Your task to perform on an android device: Search for flights from NYC to Buenos aires Image 0: 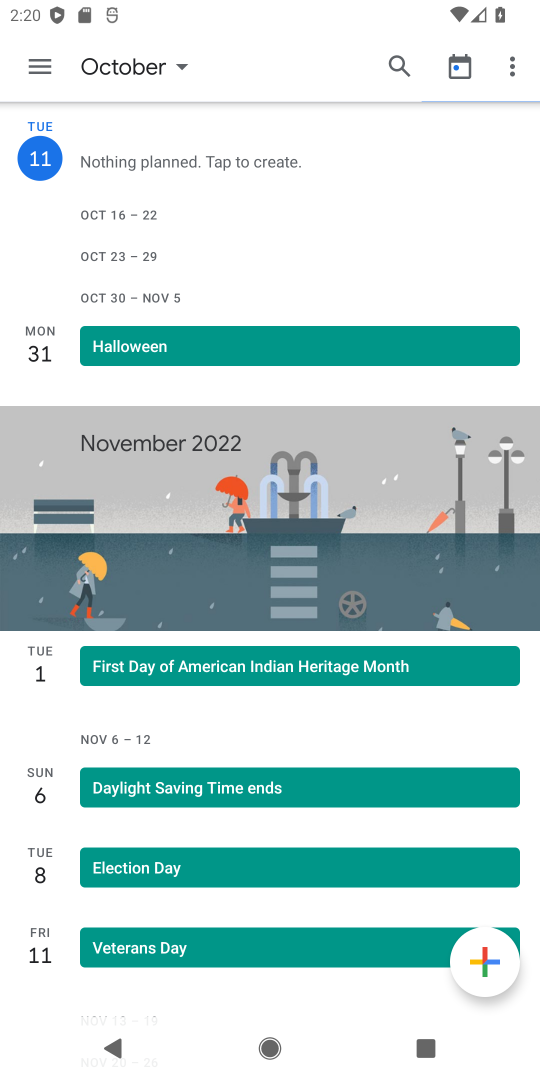
Step 0: press home button
Your task to perform on an android device: Search for flights from NYC to Buenos aires Image 1: 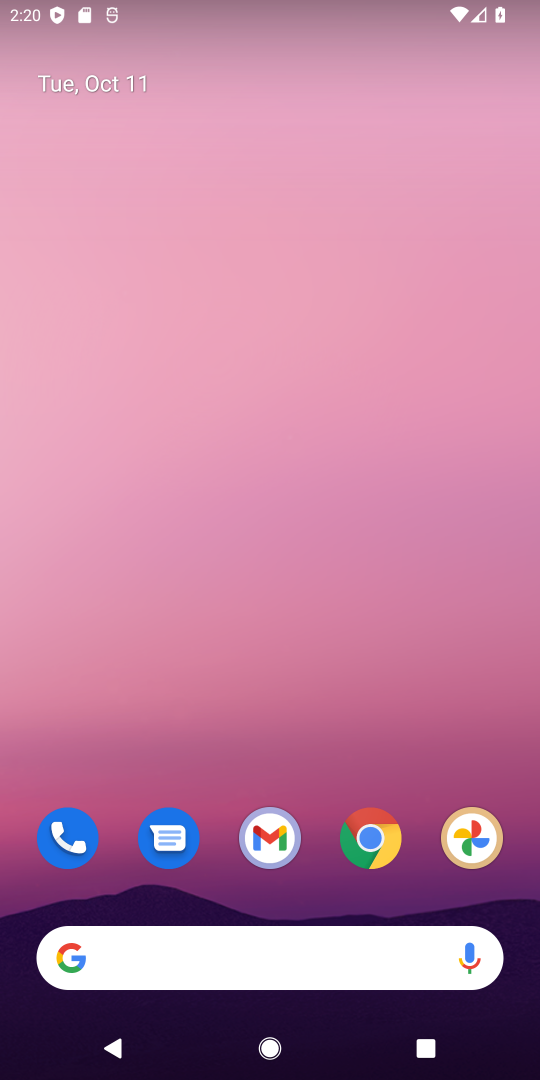
Step 1: click (369, 833)
Your task to perform on an android device: Search for flights from NYC to Buenos aires Image 2: 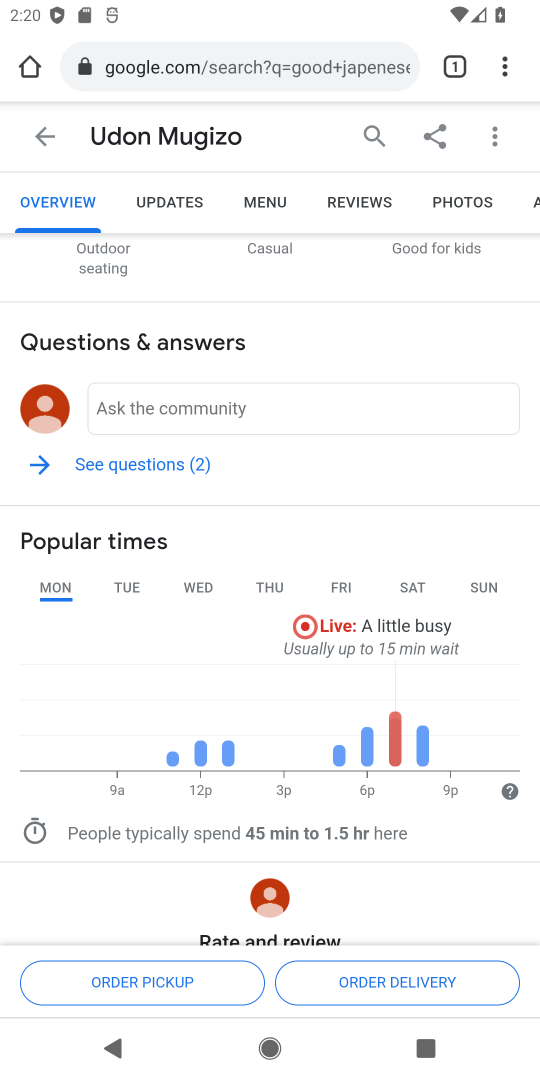
Step 2: click (189, 51)
Your task to perform on an android device: Search for flights from NYC to Buenos aires Image 3: 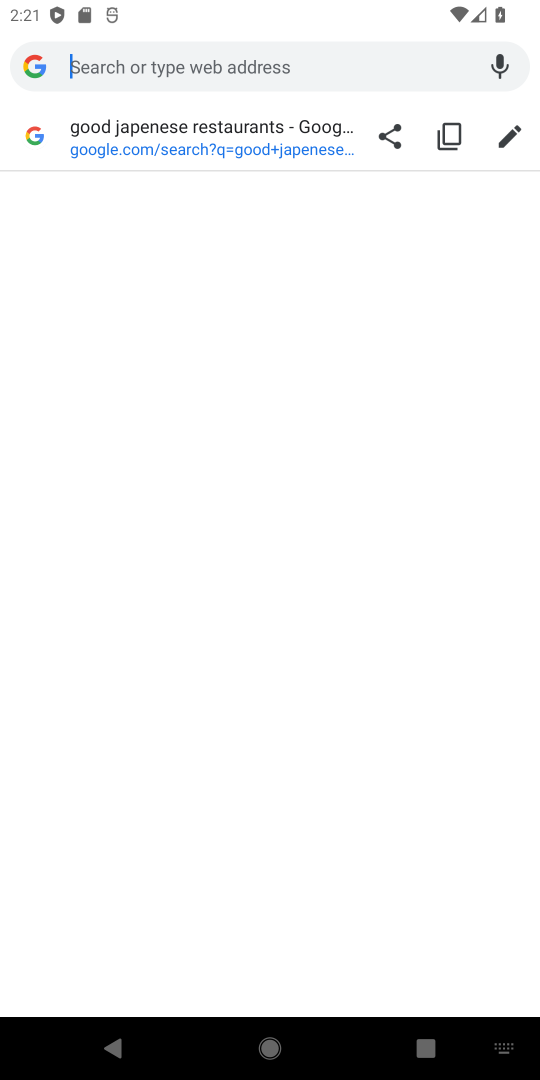
Step 3: type "search flight"
Your task to perform on an android device: Search for flights from NYC to Buenos aires Image 4: 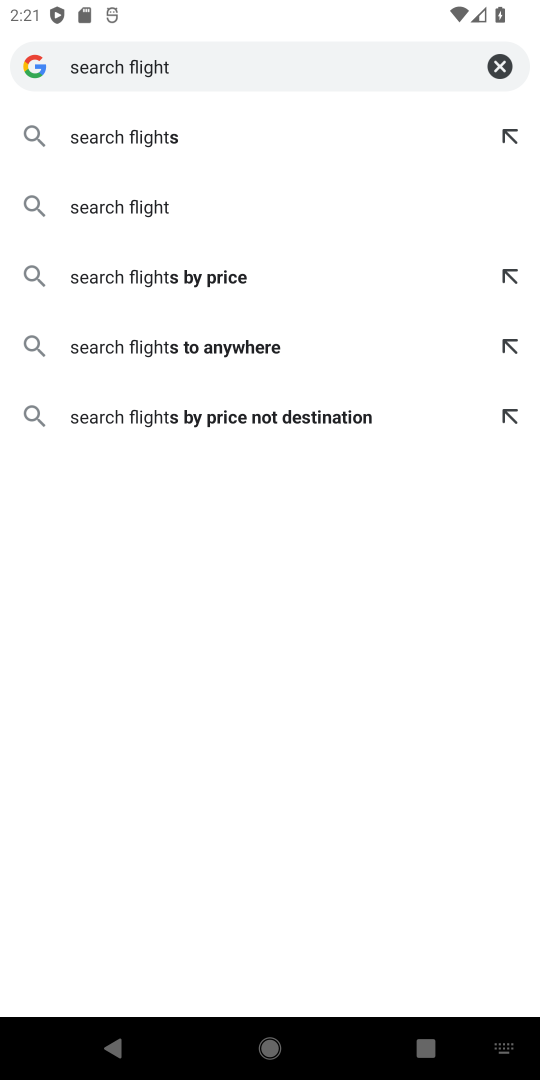
Step 4: click (148, 130)
Your task to perform on an android device: Search for flights from NYC to Buenos aires Image 5: 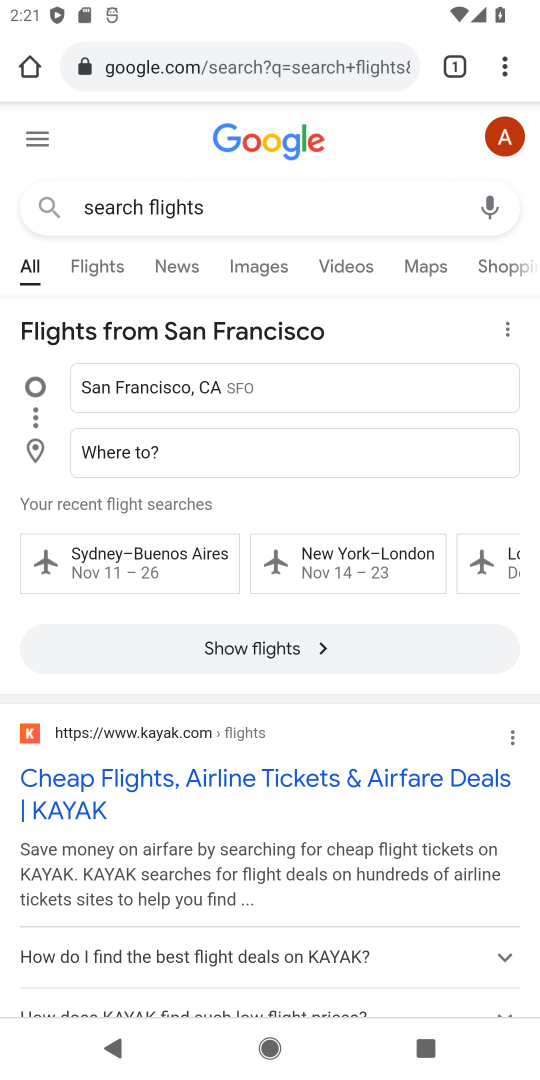
Step 5: drag from (358, 931) to (358, 306)
Your task to perform on an android device: Search for flights from NYC to Buenos aires Image 6: 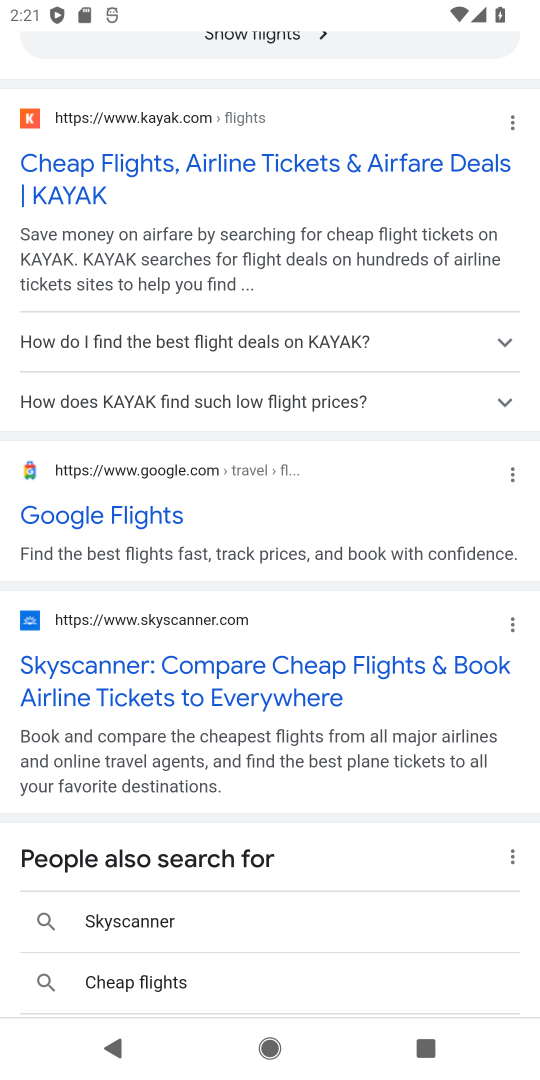
Step 6: drag from (287, 916) to (279, 352)
Your task to perform on an android device: Search for flights from NYC to Buenos aires Image 7: 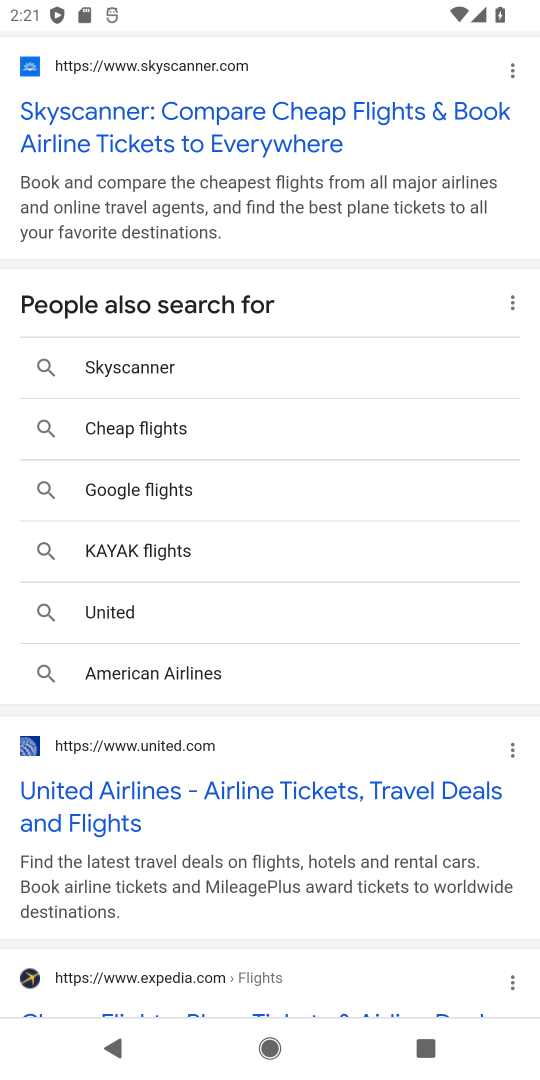
Step 7: drag from (301, 885) to (284, 278)
Your task to perform on an android device: Search for flights from NYC to Buenos aires Image 8: 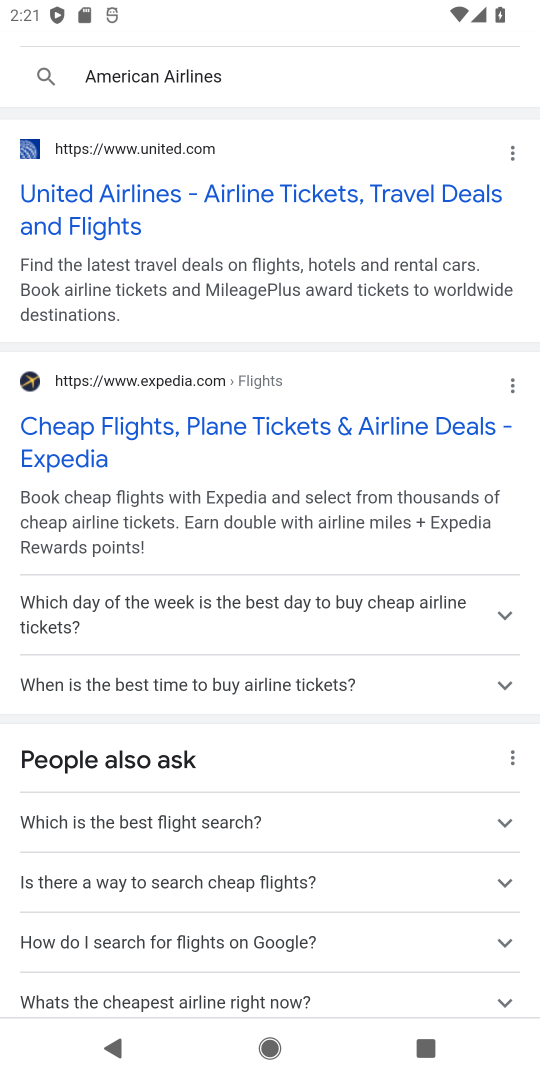
Step 8: drag from (374, 953) to (392, 275)
Your task to perform on an android device: Search for flights from NYC to Buenos aires Image 9: 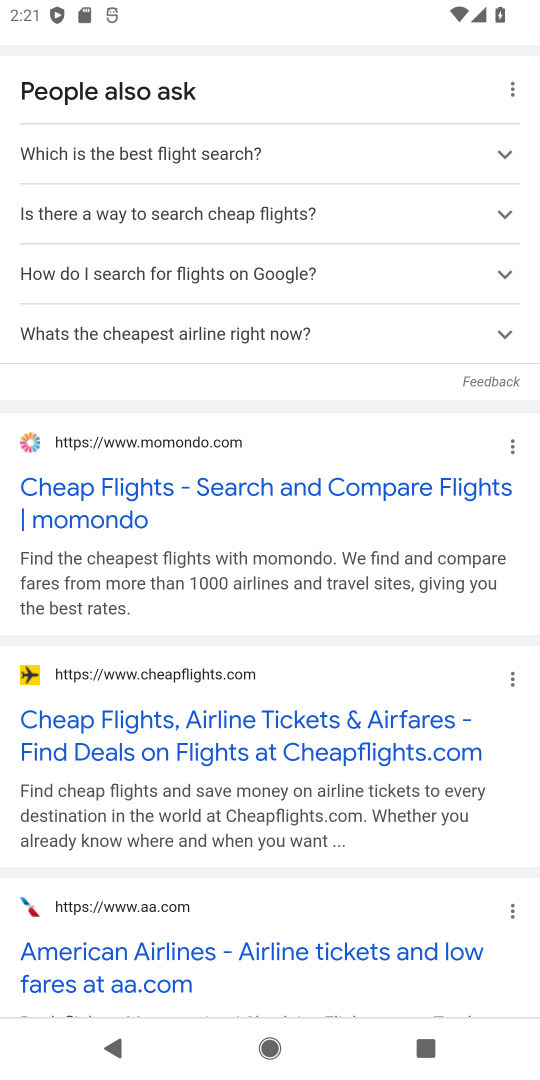
Step 9: click (226, 478)
Your task to perform on an android device: Search for flights from NYC to Buenos aires Image 10: 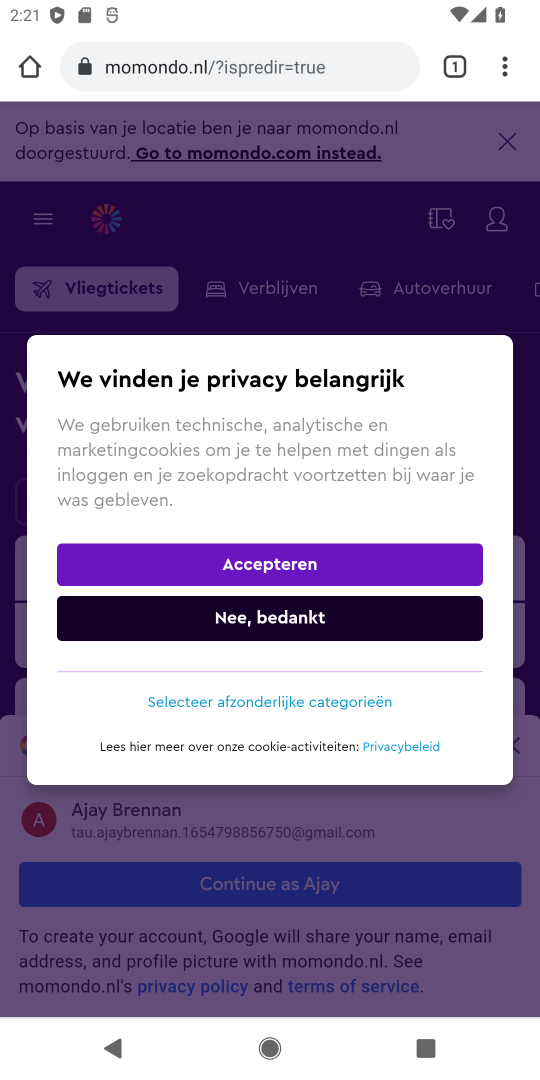
Step 10: click (503, 153)
Your task to perform on an android device: Search for flights from NYC to Buenos aires Image 11: 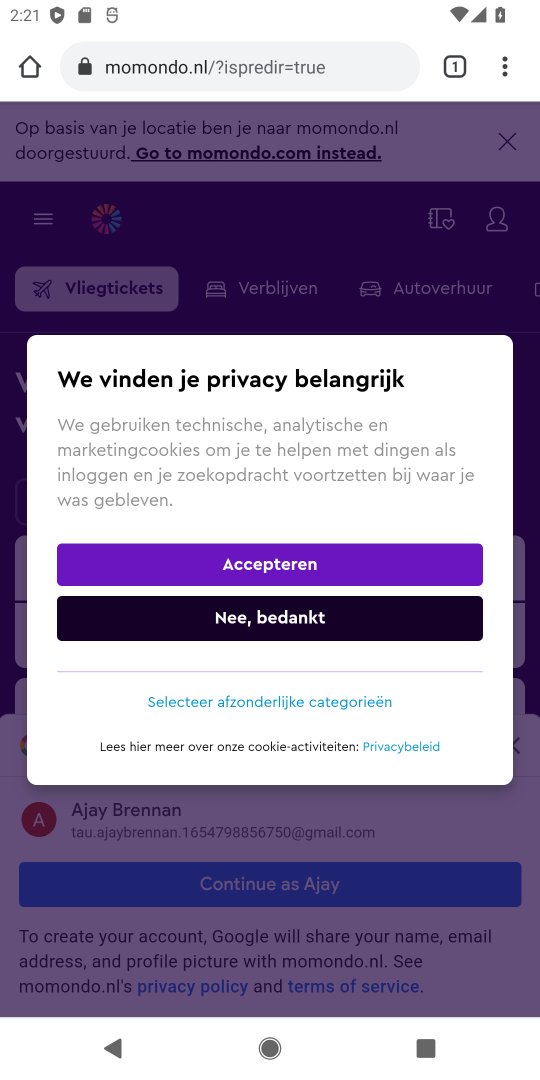
Step 11: click (226, 627)
Your task to perform on an android device: Search for flights from NYC to Buenos aires Image 12: 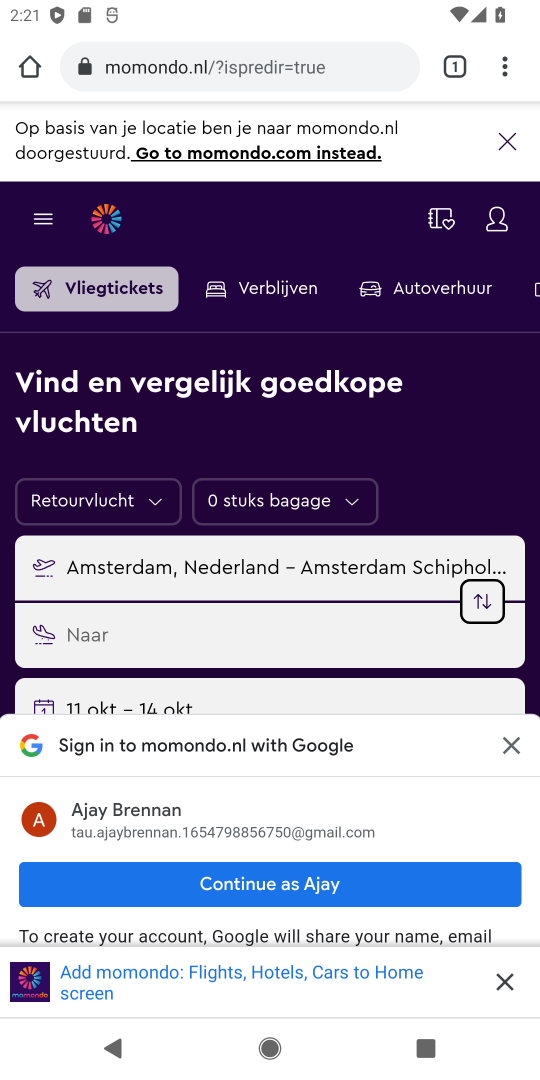
Step 12: click (507, 745)
Your task to perform on an android device: Search for flights from NYC to Buenos aires Image 13: 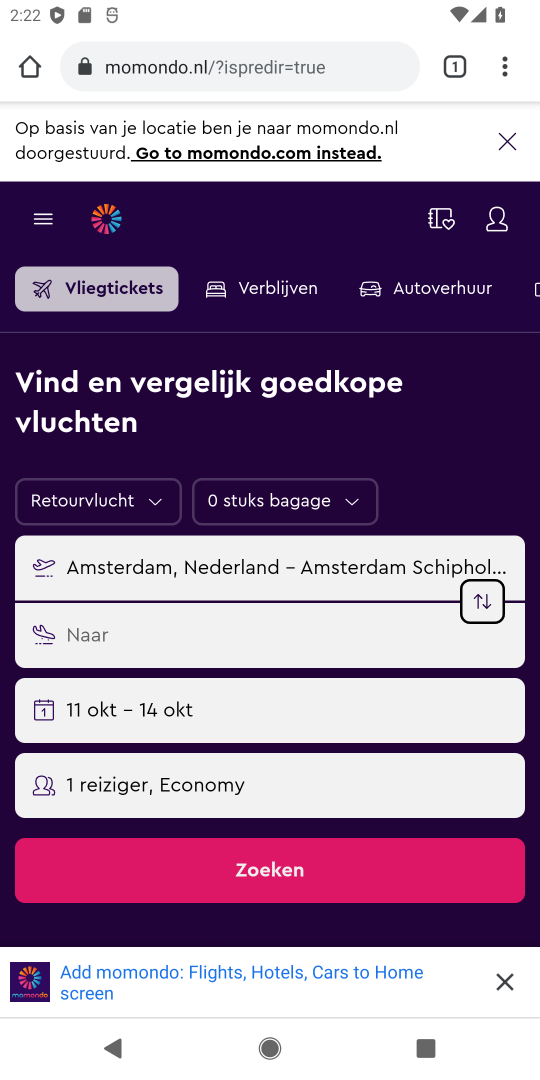
Step 13: click (242, 561)
Your task to perform on an android device: Search for flights from NYC to Buenos aires Image 14: 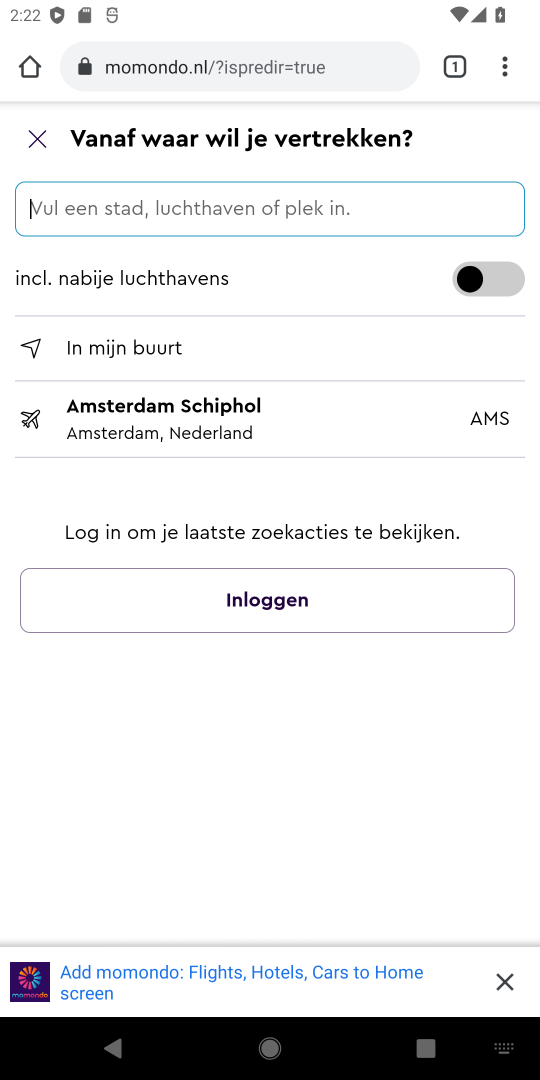
Step 14: type "nyc"
Your task to perform on an android device: Search for flights from NYC to Buenos aires Image 15: 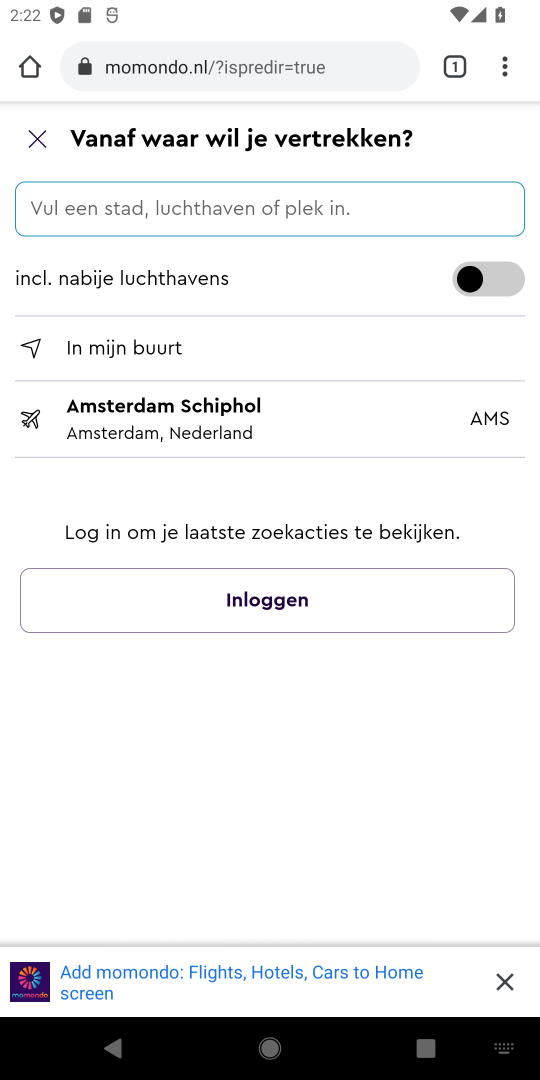
Step 15: click (111, 347)
Your task to perform on an android device: Search for flights from NYC to Buenos aires Image 16: 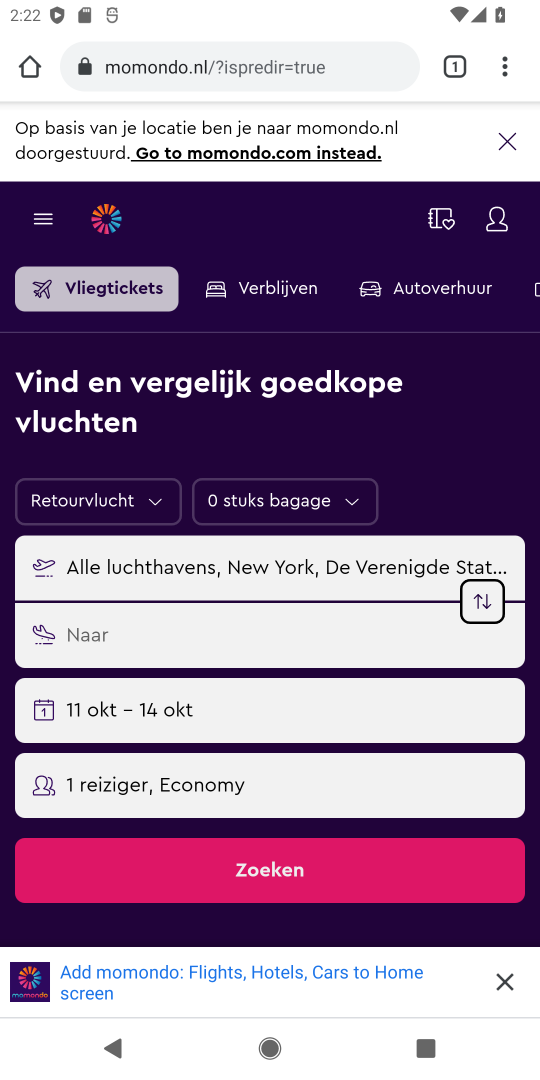
Step 16: click (72, 642)
Your task to perform on an android device: Search for flights from NYC to Buenos aires Image 17: 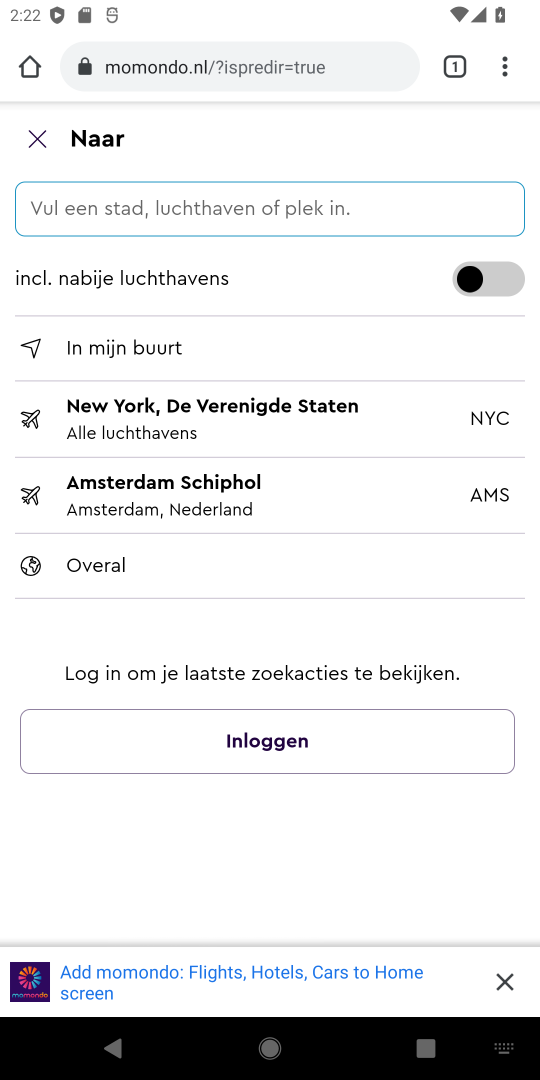
Step 17: type "buenos "
Your task to perform on an android device: Search for flights from NYC to Buenos aires Image 18: 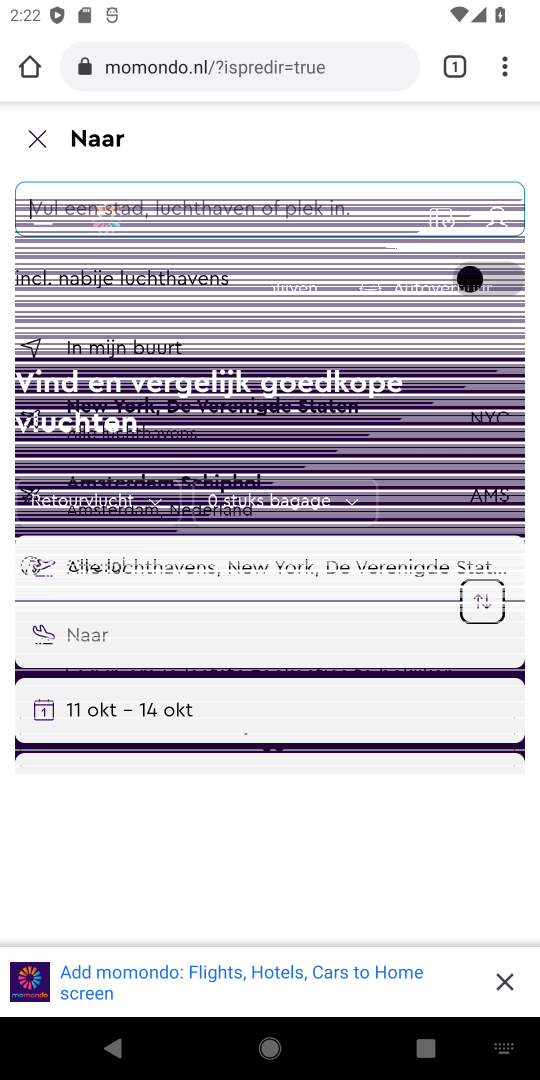
Step 18: type ""
Your task to perform on an android device: Search for flights from NYC to Buenos aires Image 19: 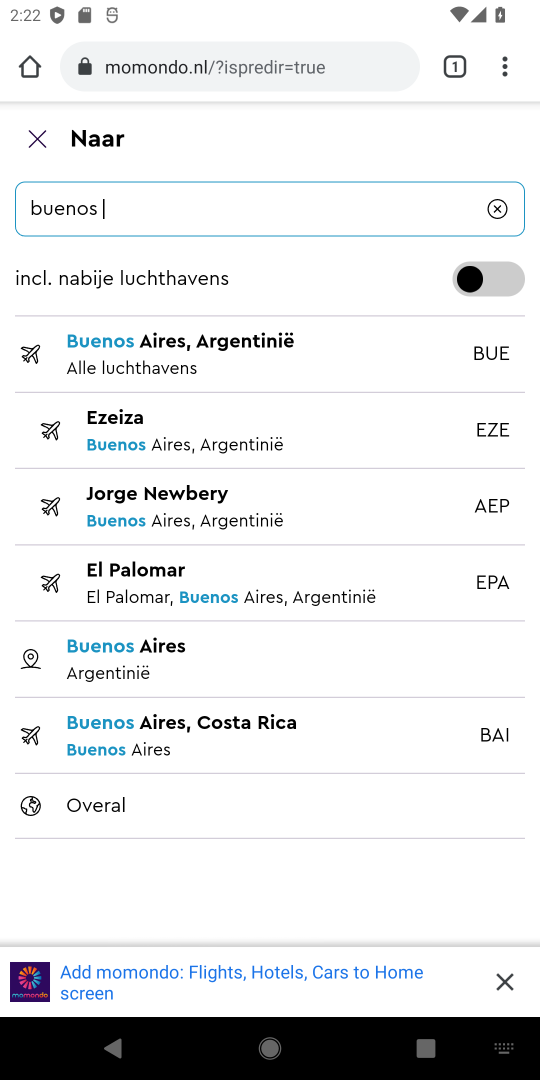
Step 19: click (105, 372)
Your task to perform on an android device: Search for flights from NYC to Buenos aires Image 20: 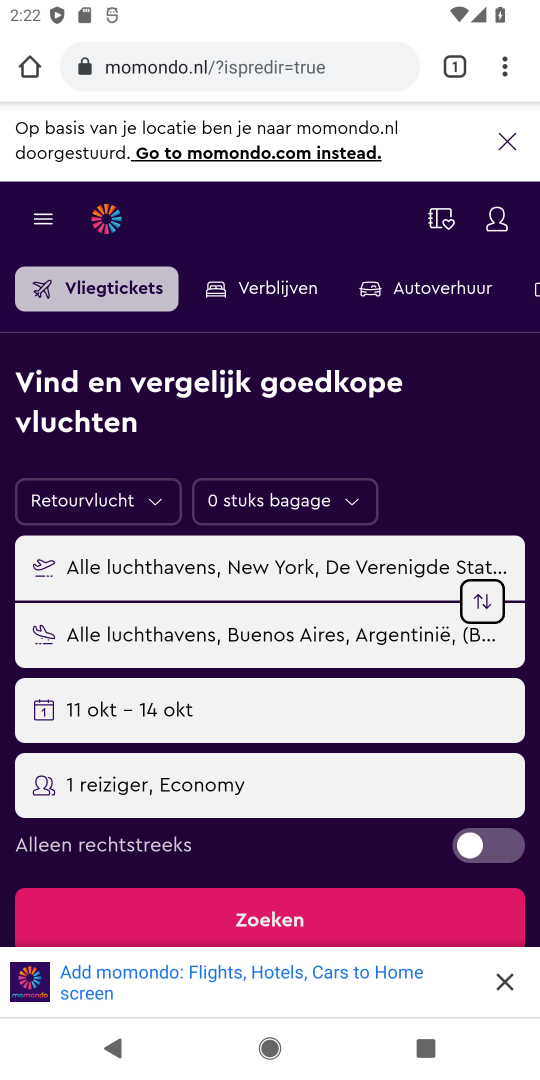
Step 20: click (504, 983)
Your task to perform on an android device: Search for flights from NYC to Buenos aires Image 21: 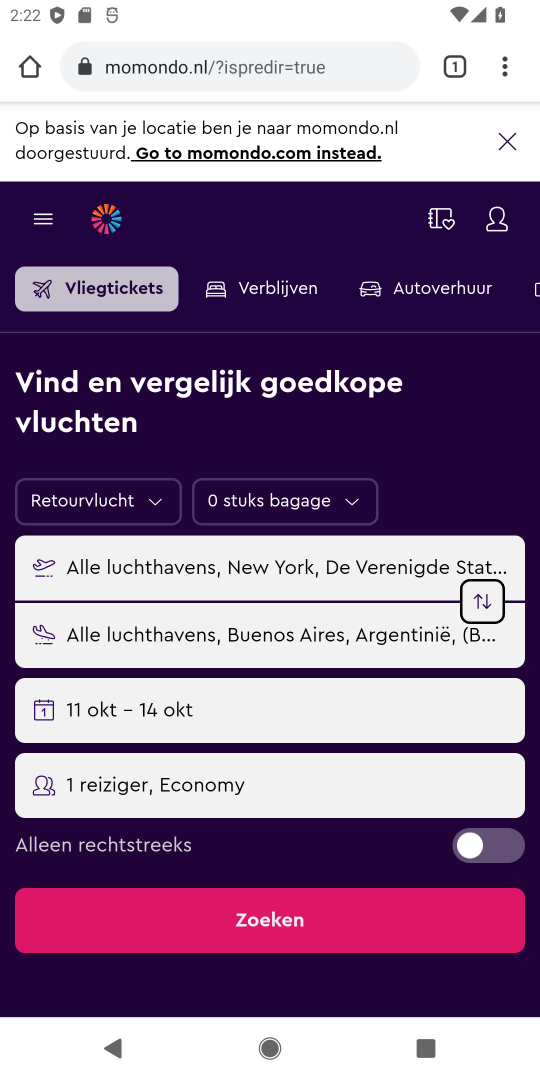
Step 21: click (287, 918)
Your task to perform on an android device: Search for flights from NYC to Buenos aires Image 22: 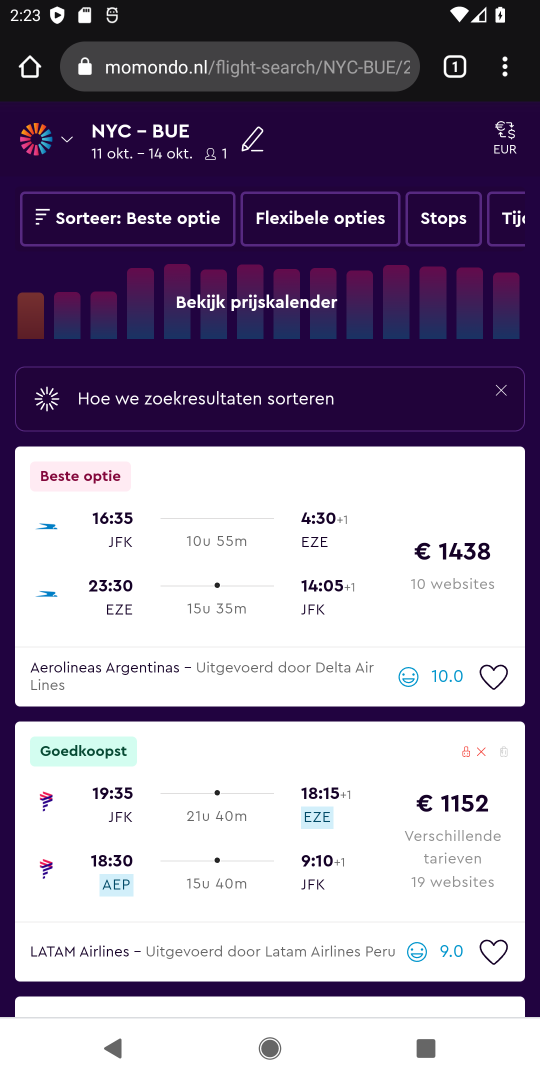
Step 22: task complete